Your task to perform on an android device: show emergency info Image 0: 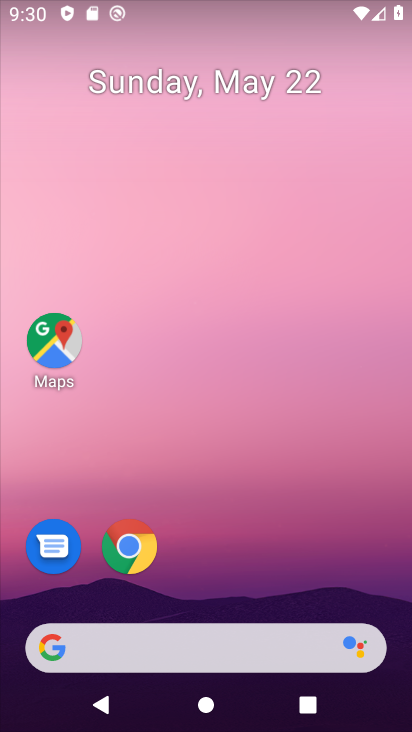
Step 0: drag from (216, 558) to (228, 216)
Your task to perform on an android device: show emergency info Image 1: 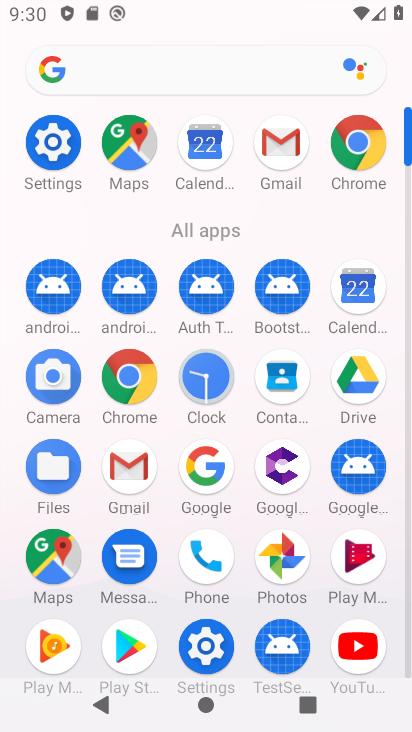
Step 1: click (54, 152)
Your task to perform on an android device: show emergency info Image 2: 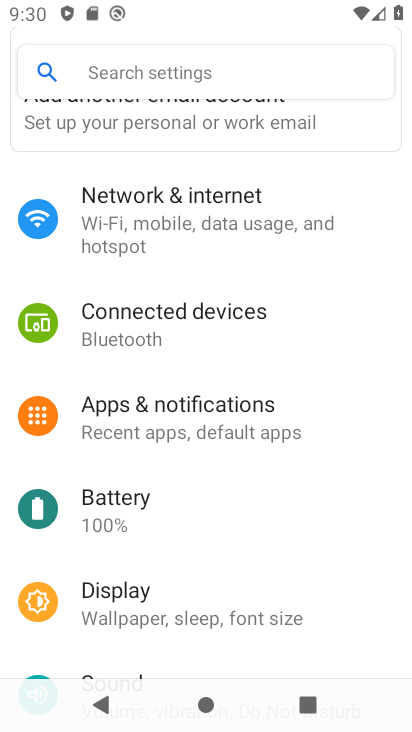
Step 2: drag from (270, 654) to (231, 127)
Your task to perform on an android device: show emergency info Image 3: 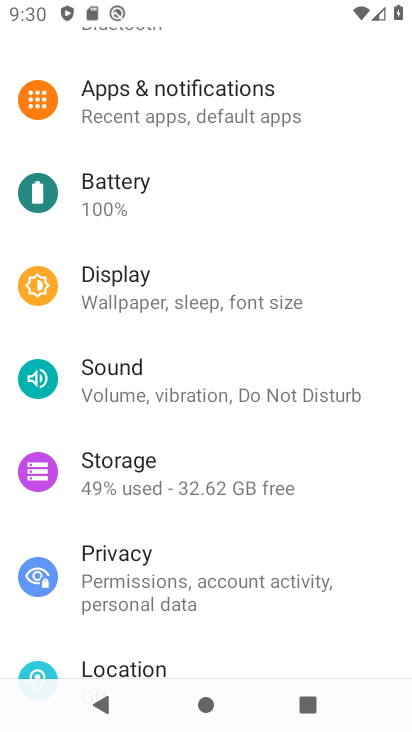
Step 3: drag from (244, 630) to (170, 81)
Your task to perform on an android device: show emergency info Image 4: 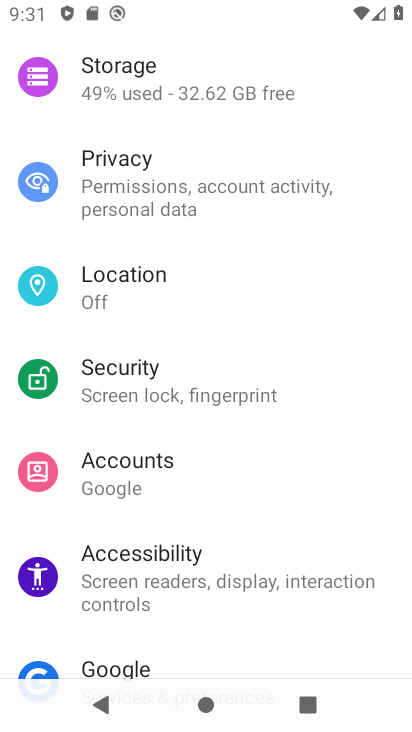
Step 4: drag from (210, 614) to (162, 175)
Your task to perform on an android device: show emergency info Image 5: 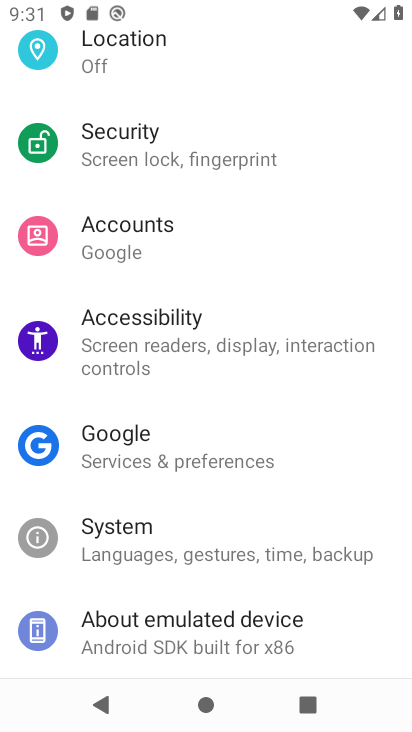
Step 5: click (269, 647)
Your task to perform on an android device: show emergency info Image 6: 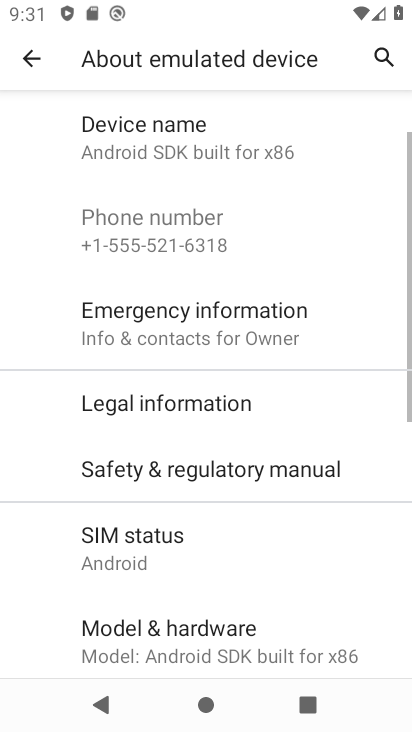
Step 6: click (282, 315)
Your task to perform on an android device: show emergency info Image 7: 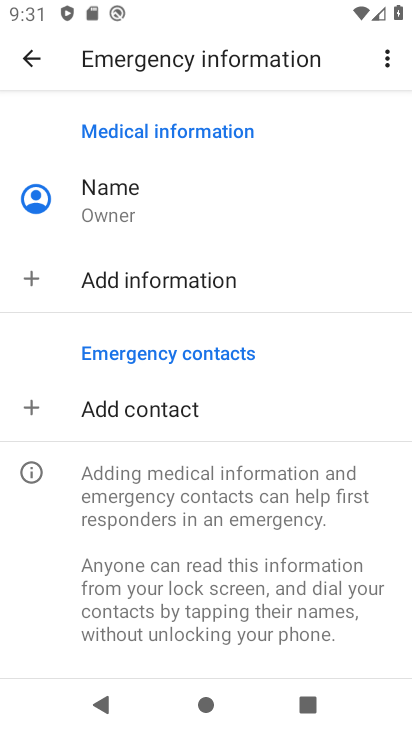
Step 7: task complete